Your task to perform on an android device: Show me productivity apps on the Play Store Image 0: 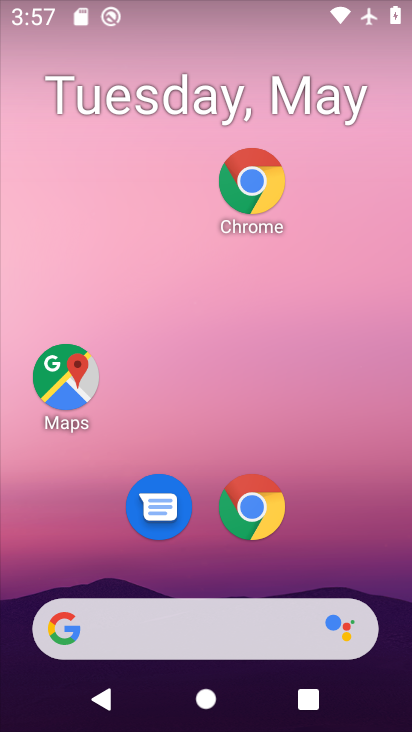
Step 0: drag from (391, 383) to (391, 132)
Your task to perform on an android device: Show me productivity apps on the Play Store Image 1: 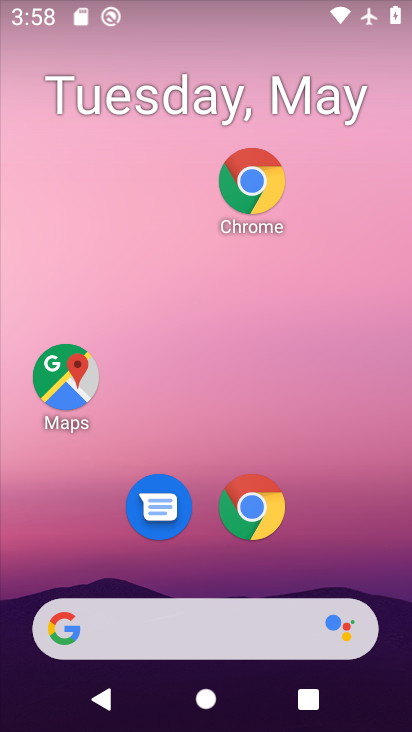
Step 1: drag from (348, 533) to (408, 120)
Your task to perform on an android device: Show me productivity apps on the Play Store Image 2: 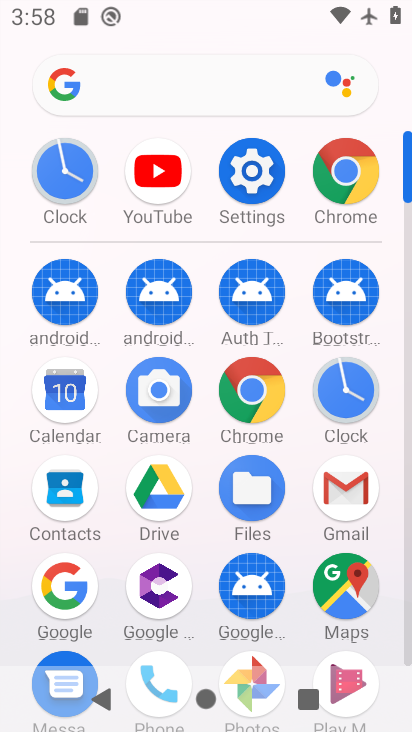
Step 2: drag from (410, 584) to (406, 207)
Your task to perform on an android device: Show me productivity apps on the Play Store Image 3: 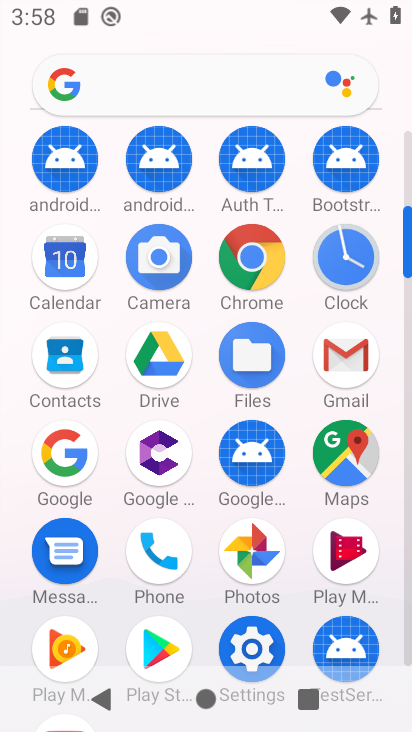
Step 3: click (150, 646)
Your task to perform on an android device: Show me productivity apps on the Play Store Image 4: 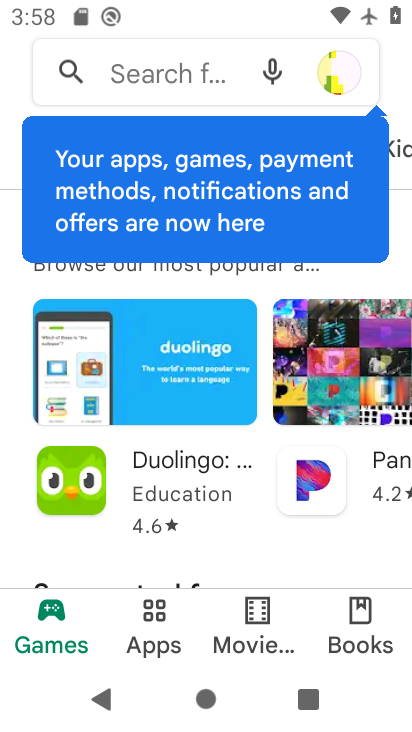
Step 4: click (178, 72)
Your task to perform on an android device: Show me productivity apps on the Play Store Image 5: 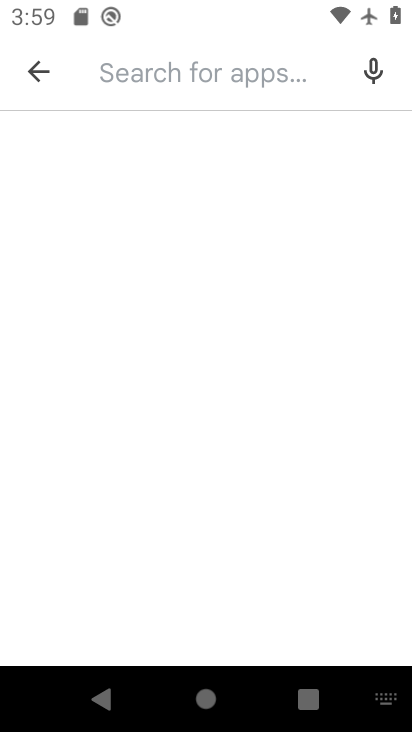
Step 5: type "productivity apps"
Your task to perform on an android device: Show me productivity apps on the Play Store Image 6: 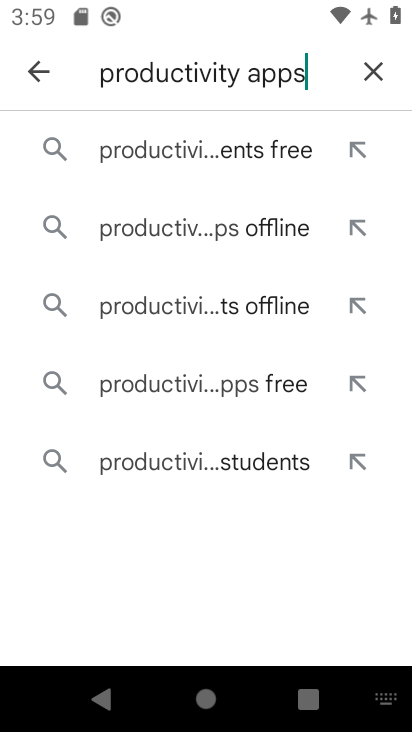
Step 6: press enter
Your task to perform on an android device: Show me productivity apps on the Play Store Image 7: 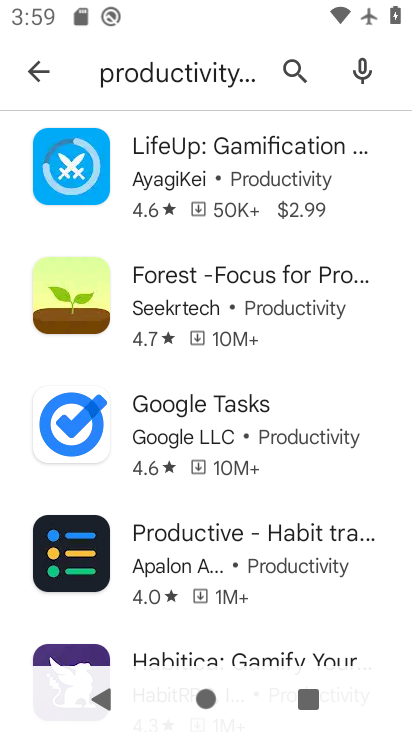
Step 7: task complete